Your task to perform on an android device: Open settings Image 0: 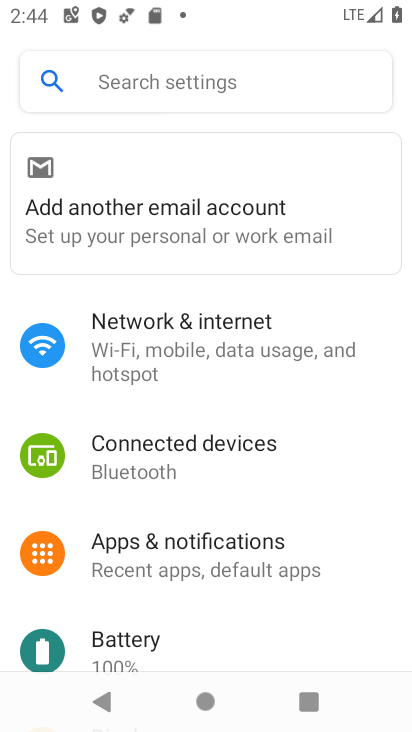
Step 0: drag from (250, 608) to (257, 152)
Your task to perform on an android device: Open settings Image 1: 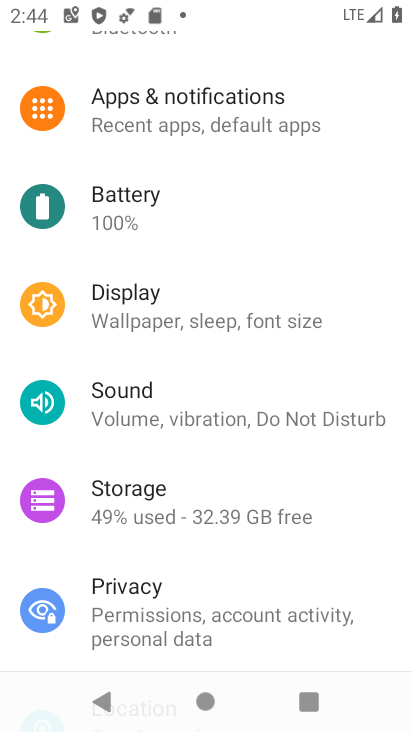
Step 1: press home button
Your task to perform on an android device: Open settings Image 2: 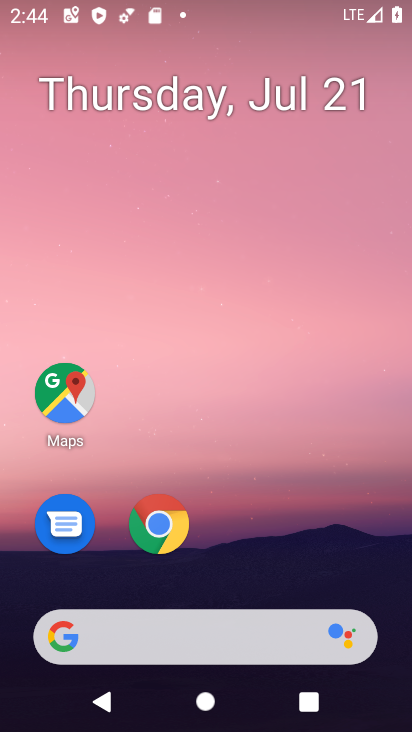
Step 2: drag from (253, 529) to (273, 100)
Your task to perform on an android device: Open settings Image 3: 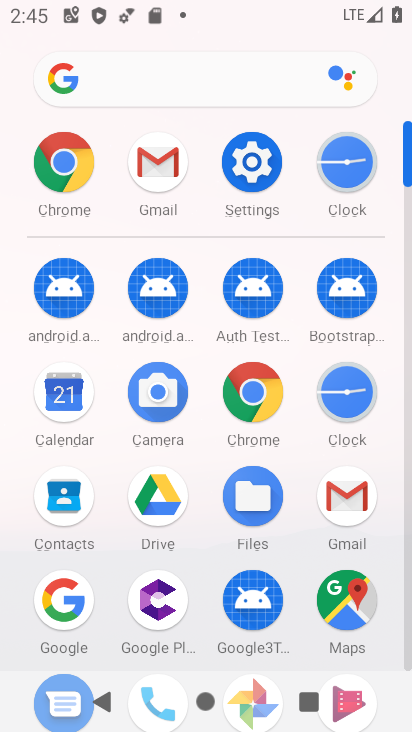
Step 3: click (256, 166)
Your task to perform on an android device: Open settings Image 4: 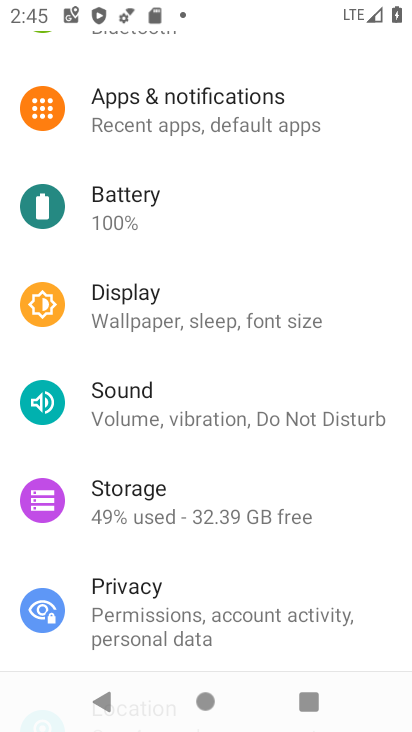
Step 4: task complete